Your task to perform on an android device: See recent photos Image 0: 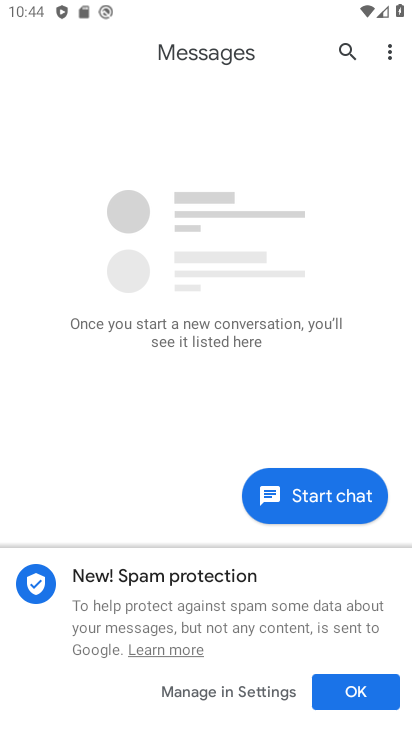
Step 0: press home button
Your task to perform on an android device: See recent photos Image 1: 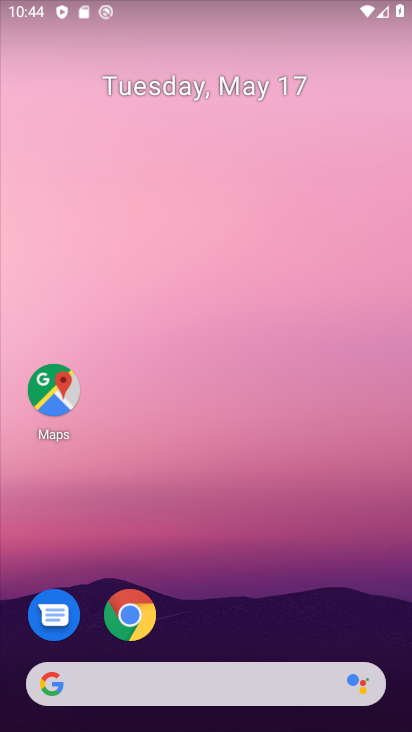
Step 1: drag from (184, 651) to (264, 209)
Your task to perform on an android device: See recent photos Image 2: 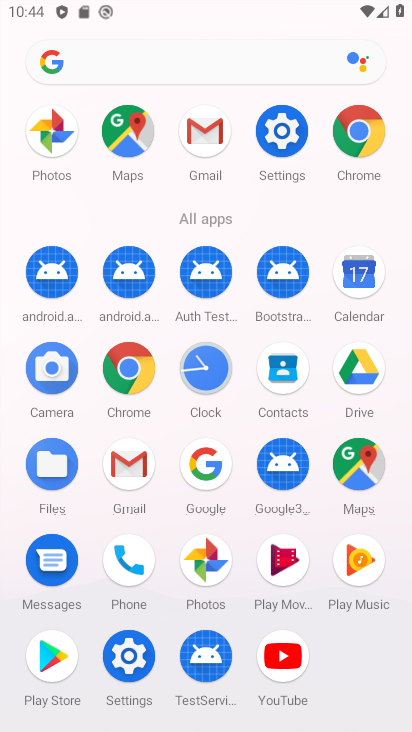
Step 2: click (210, 559)
Your task to perform on an android device: See recent photos Image 3: 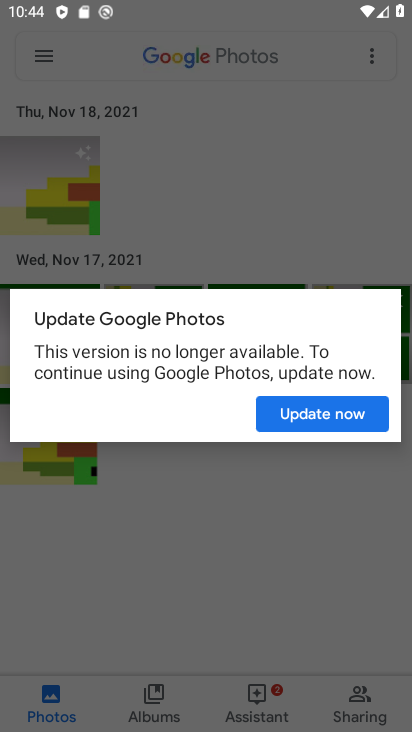
Step 3: click (308, 407)
Your task to perform on an android device: See recent photos Image 4: 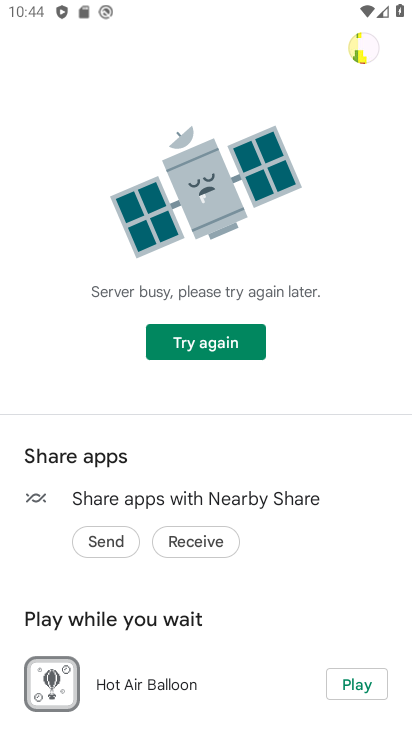
Step 4: task complete